Your task to perform on an android device: see creations saved in the google photos Image 0: 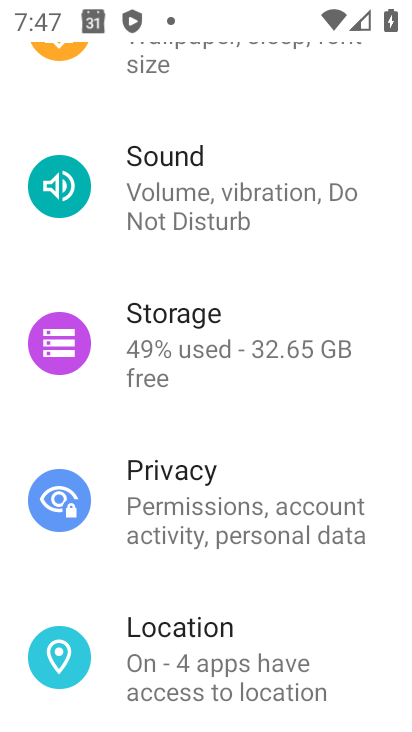
Step 0: press home button
Your task to perform on an android device: see creations saved in the google photos Image 1: 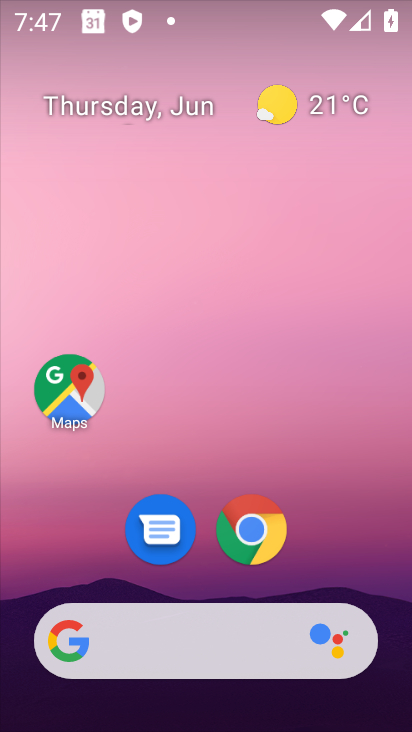
Step 1: drag from (389, 656) to (373, 143)
Your task to perform on an android device: see creations saved in the google photos Image 2: 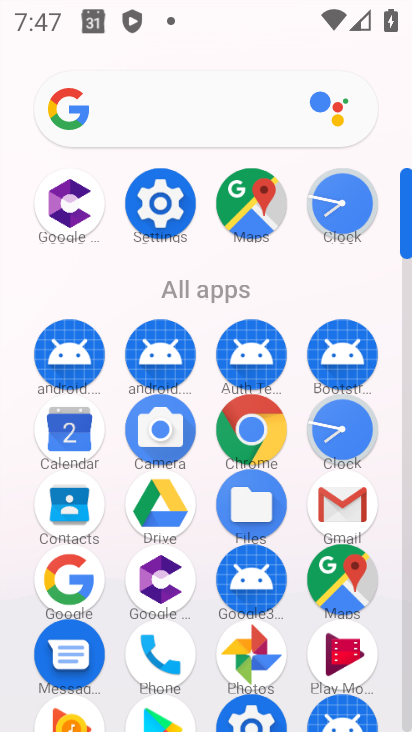
Step 2: click (277, 644)
Your task to perform on an android device: see creations saved in the google photos Image 3: 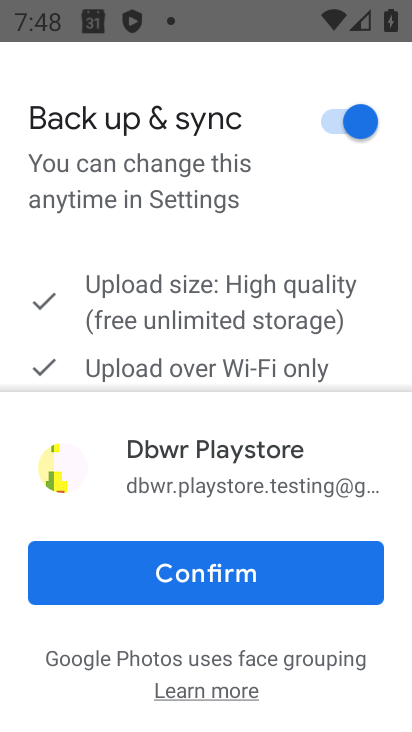
Step 3: click (171, 579)
Your task to perform on an android device: see creations saved in the google photos Image 4: 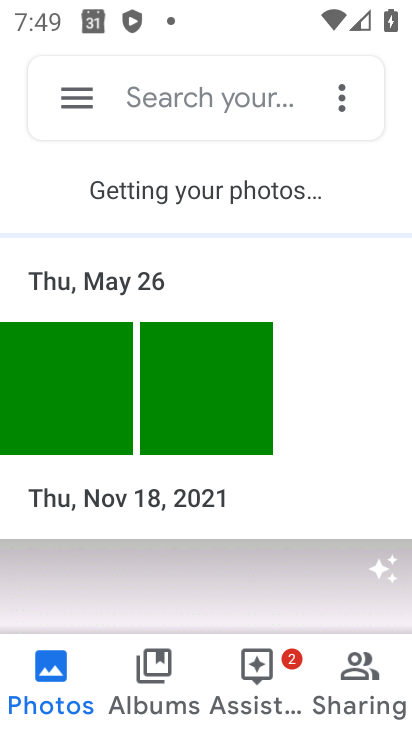
Step 4: drag from (305, 581) to (308, 231)
Your task to perform on an android device: see creations saved in the google photos Image 5: 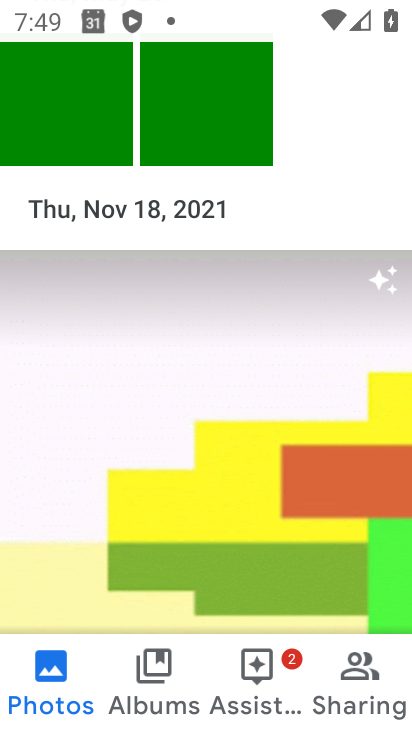
Step 5: drag from (265, 537) to (273, 167)
Your task to perform on an android device: see creations saved in the google photos Image 6: 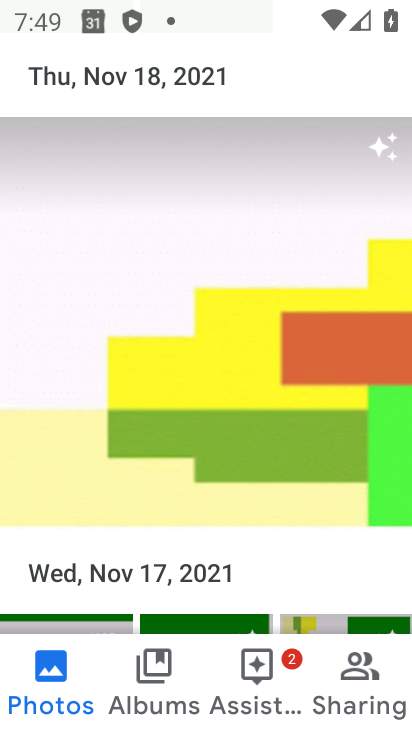
Step 6: drag from (264, 559) to (251, 192)
Your task to perform on an android device: see creations saved in the google photos Image 7: 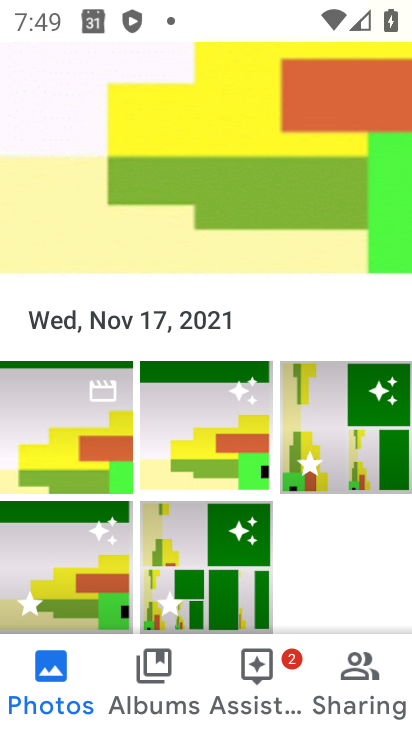
Step 7: drag from (314, 584) to (310, 263)
Your task to perform on an android device: see creations saved in the google photos Image 8: 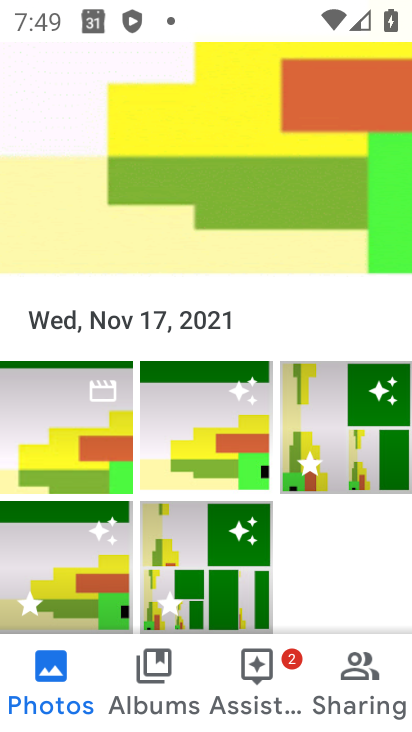
Step 8: click (56, 464)
Your task to perform on an android device: see creations saved in the google photos Image 9: 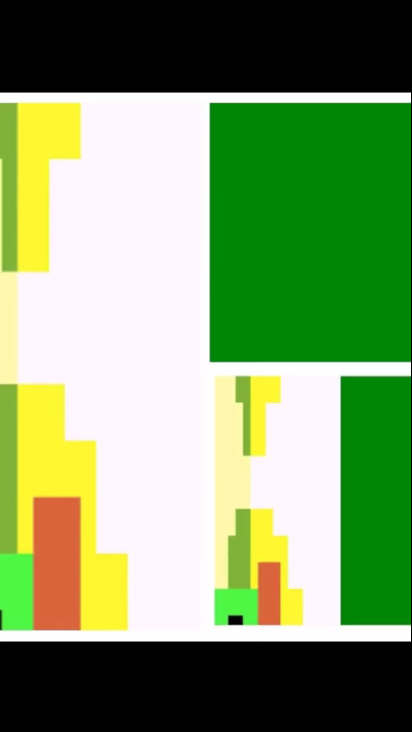
Step 9: task complete